Your task to perform on an android device: Go to Yahoo.com Image 0: 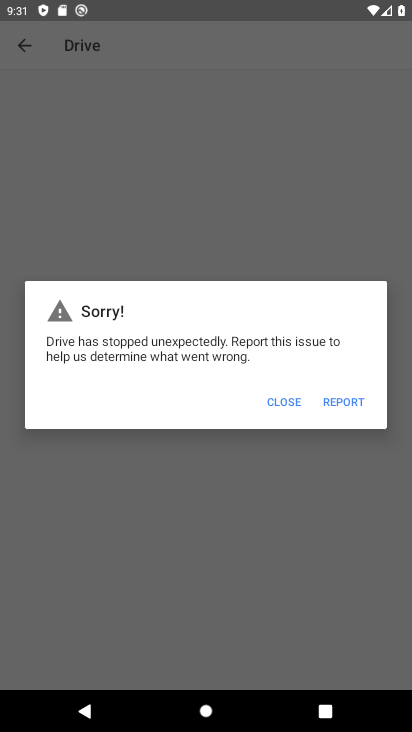
Step 0: press home button
Your task to perform on an android device: Go to Yahoo.com Image 1: 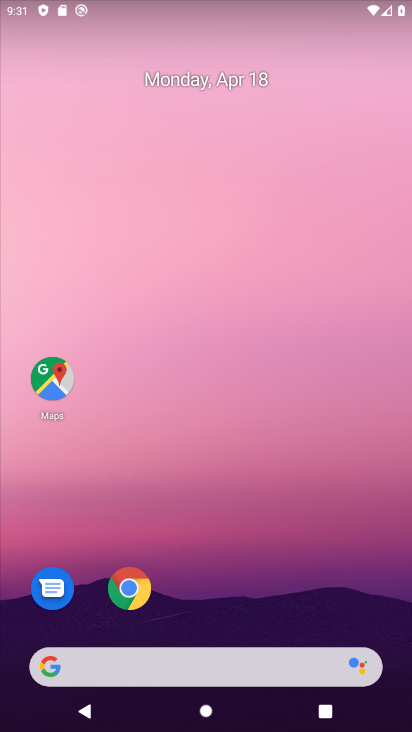
Step 1: drag from (286, 610) to (297, 24)
Your task to perform on an android device: Go to Yahoo.com Image 2: 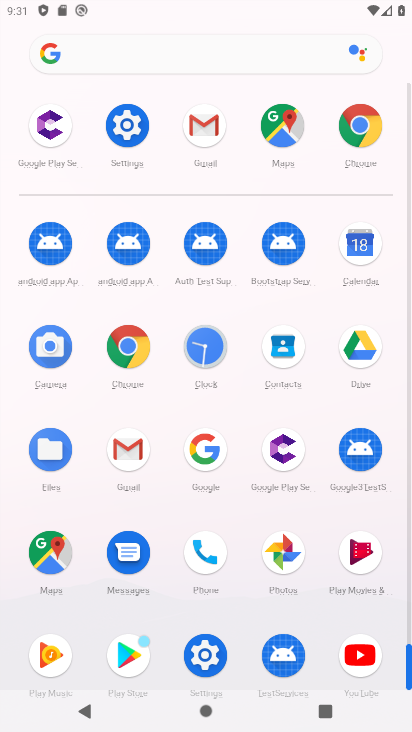
Step 2: click (137, 347)
Your task to perform on an android device: Go to Yahoo.com Image 3: 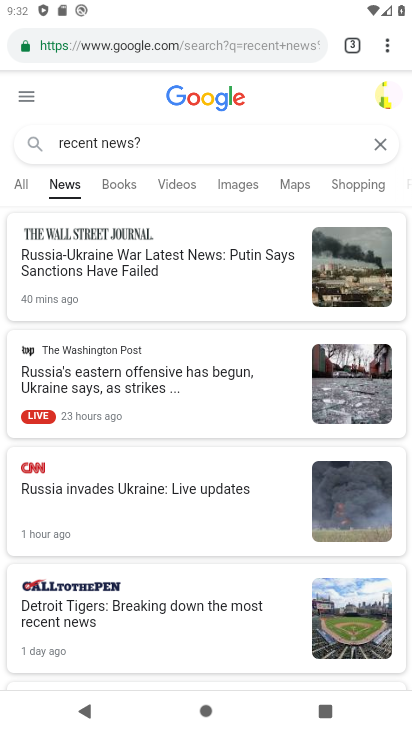
Step 3: click (378, 140)
Your task to perform on an android device: Go to Yahoo.com Image 4: 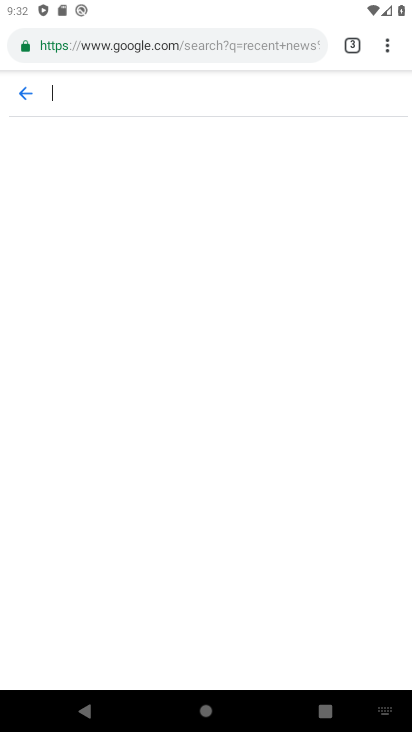
Step 4: click (149, 40)
Your task to perform on an android device: Go to Yahoo.com Image 5: 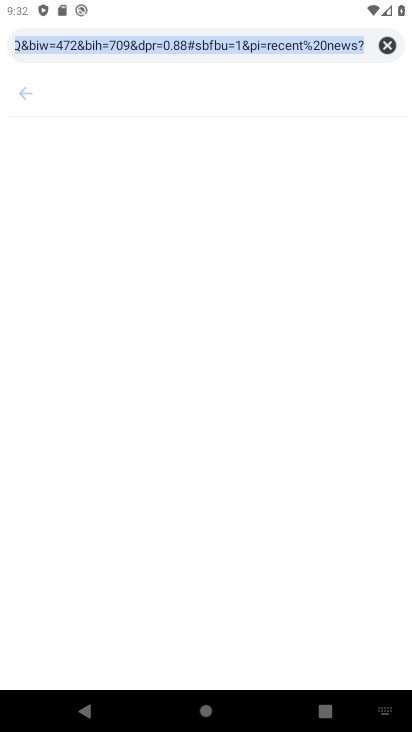
Step 5: click (394, 48)
Your task to perform on an android device: Go to Yahoo.com Image 6: 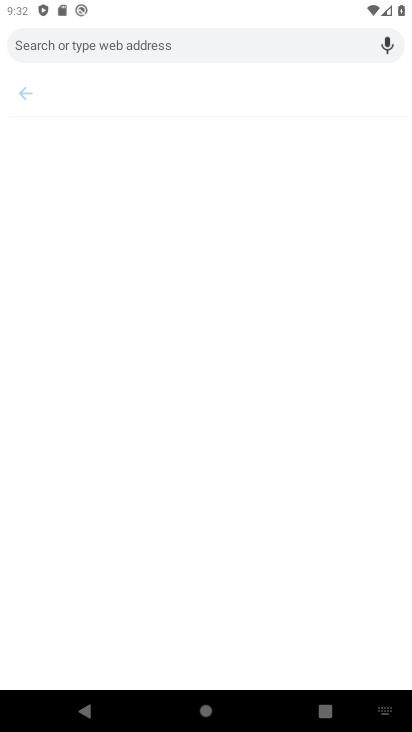
Step 6: type " Yahoo.com"
Your task to perform on an android device: Go to Yahoo.com Image 7: 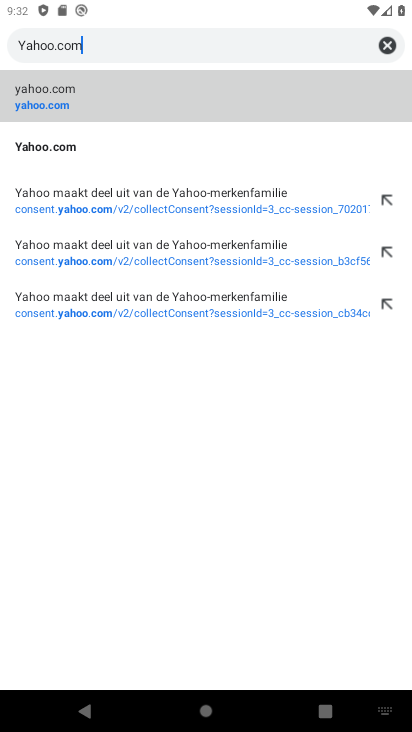
Step 7: click (41, 99)
Your task to perform on an android device: Go to Yahoo.com Image 8: 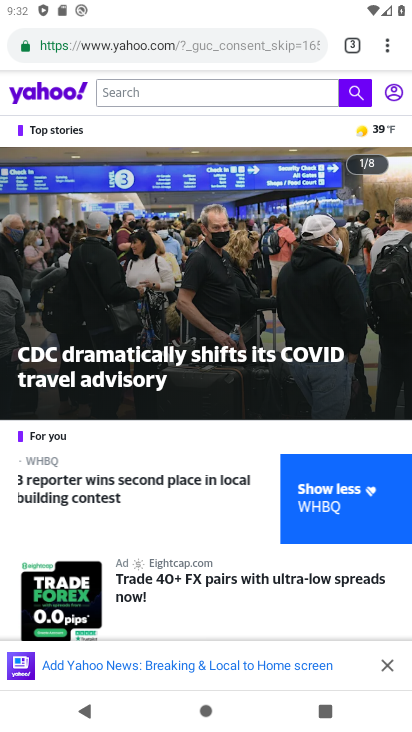
Step 8: task complete